Your task to perform on an android device: open chrome and create a bookmark for the current page Image 0: 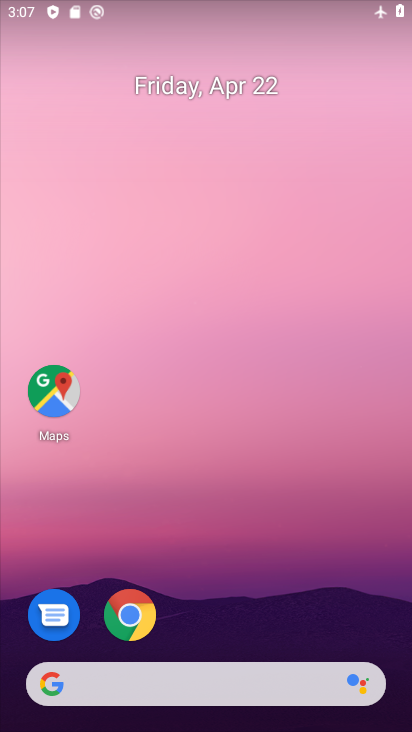
Step 0: click (123, 620)
Your task to perform on an android device: open chrome and create a bookmark for the current page Image 1: 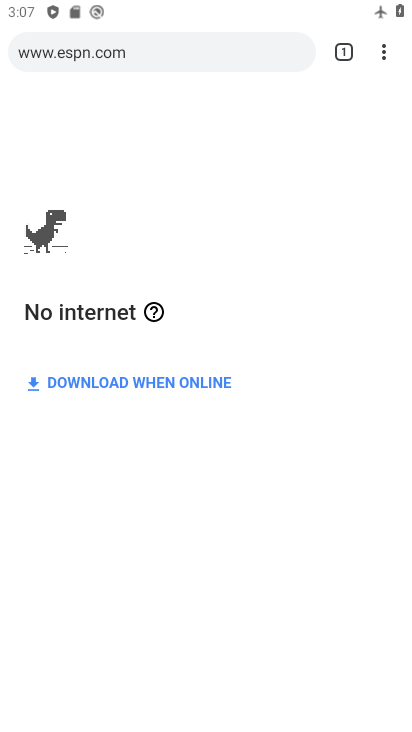
Step 1: click (386, 44)
Your task to perform on an android device: open chrome and create a bookmark for the current page Image 2: 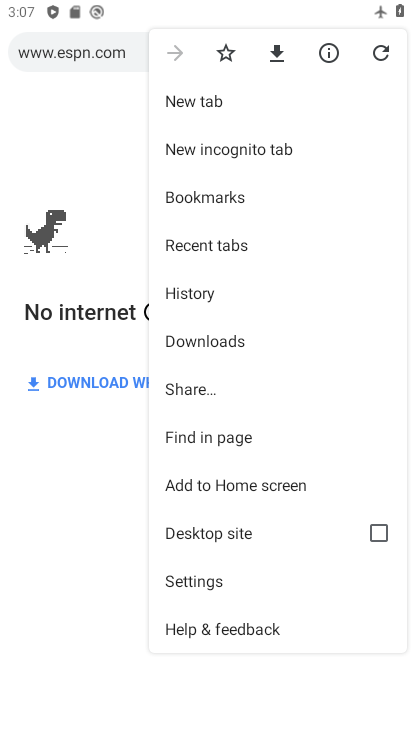
Step 2: click (225, 50)
Your task to perform on an android device: open chrome and create a bookmark for the current page Image 3: 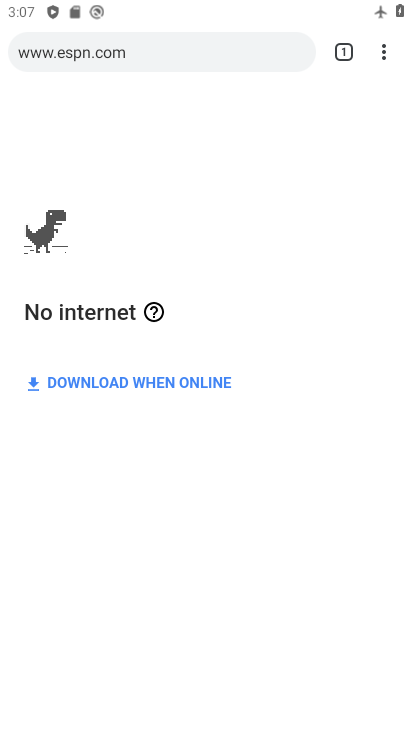
Step 3: task complete